Your task to perform on an android device: toggle notification dots Image 0: 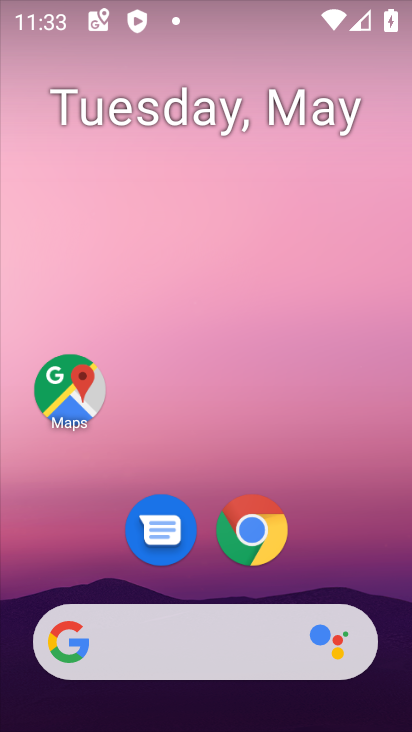
Step 0: drag from (322, 587) to (328, 0)
Your task to perform on an android device: toggle notification dots Image 1: 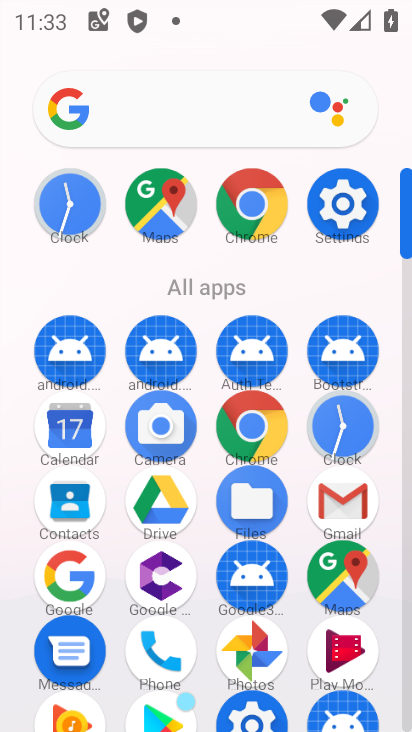
Step 1: click (333, 207)
Your task to perform on an android device: toggle notification dots Image 2: 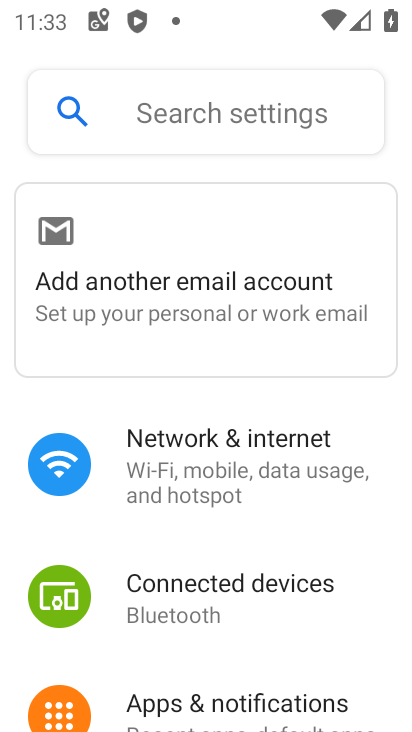
Step 2: drag from (231, 645) to (242, 236)
Your task to perform on an android device: toggle notification dots Image 3: 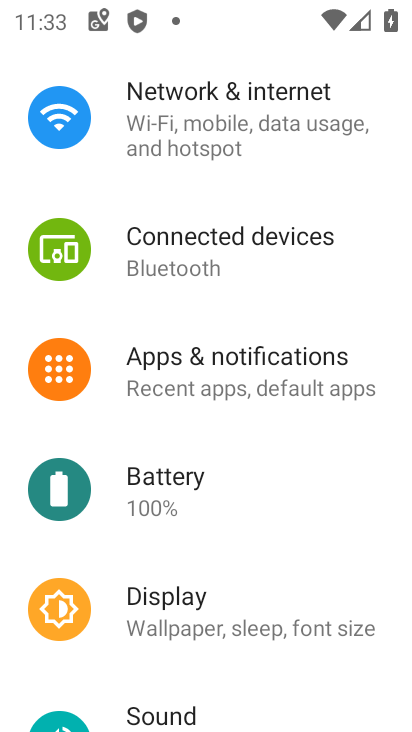
Step 3: click (269, 397)
Your task to perform on an android device: toggle notification dots Image 4: 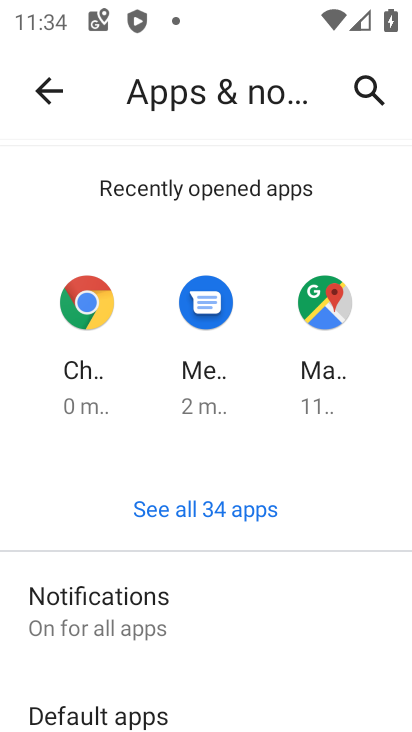
Step 4: drag from (197, 656) to (193, 267)
Your task to perform on an android device: toggle notification dots Image 5: 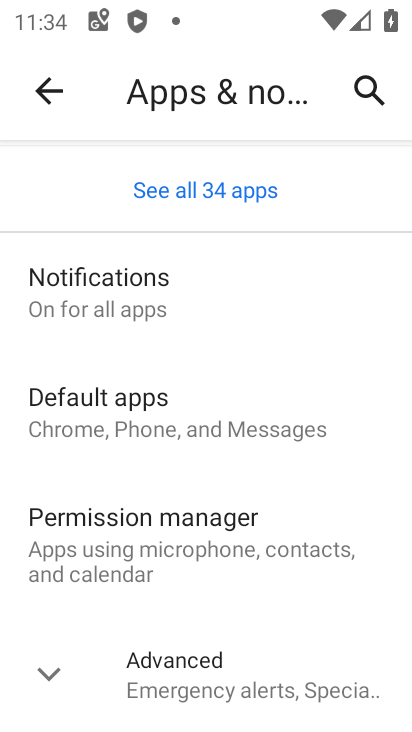
Step 5: click (121, 269)
Your task to perform on an android device: toggle notification dots Image 6: 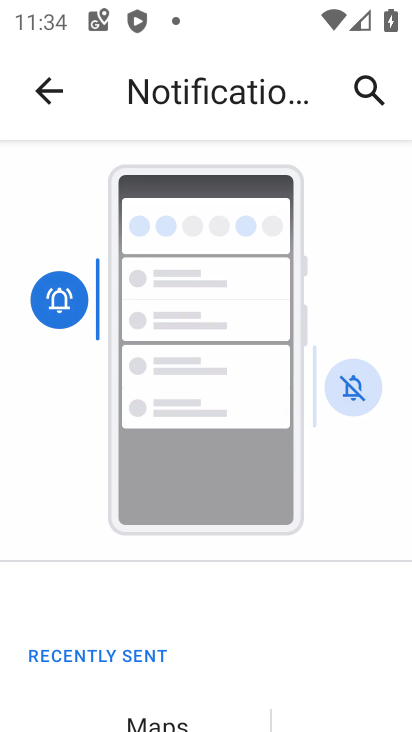
Step 6: task complete